Your task to perform on an android device: Open Maps and search for coffee Image 0: 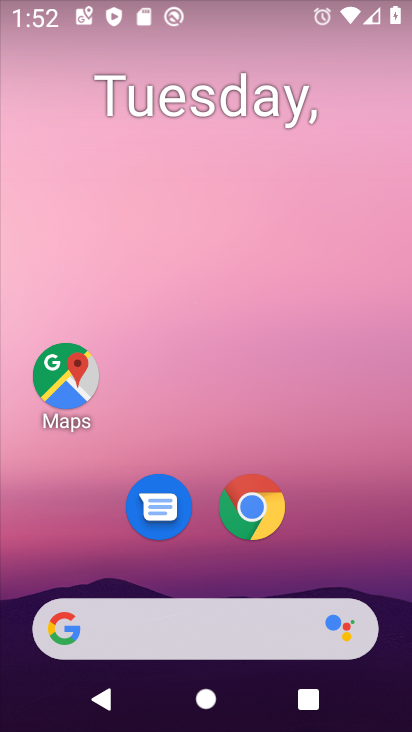
Step 0: click (73, 365)
Your task to perform on an android device: Open Maps and search for coffee Image 1: 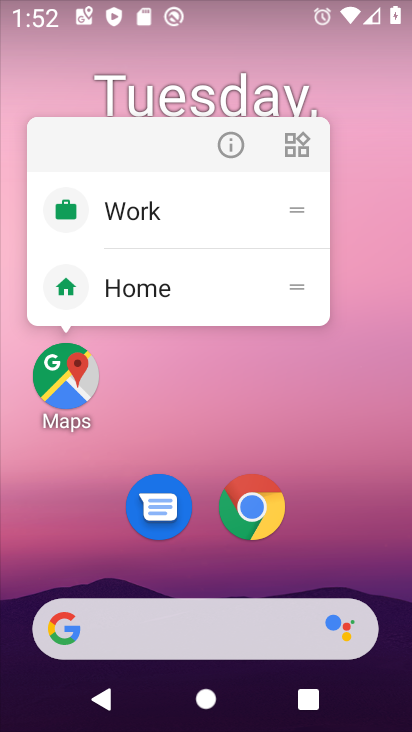
Step 1: click (63, 372)
Your task to perform on an android device: Open Maps and search for coffee Image 2: 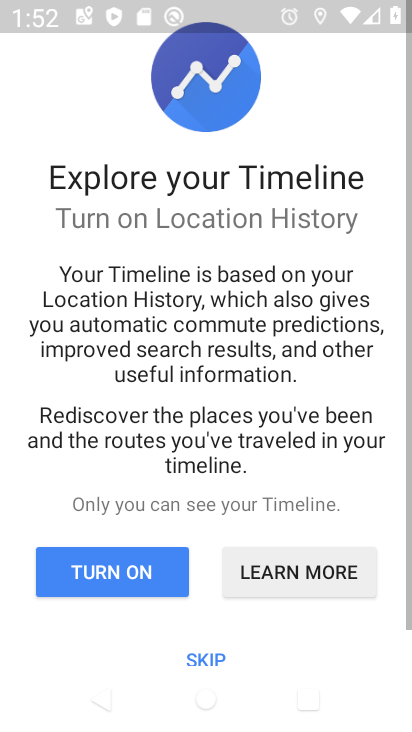
Step 2: click (211, 660)
Your task to perform on an android device: Open Maps and search for coffee Image 3: 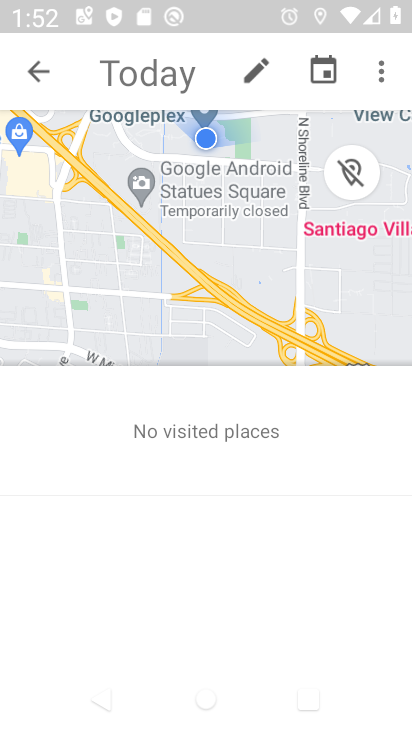
Step 3: click (45, 63)
Your task to perform on an android device: Open Maps and search for coffee Image 4: 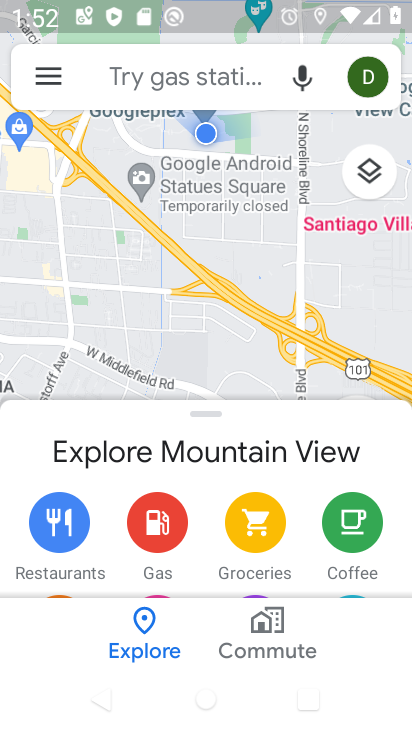
Step 4: click (196, 69)
Your task to perform on an android device: Open Maps and search for coffee Image 5: 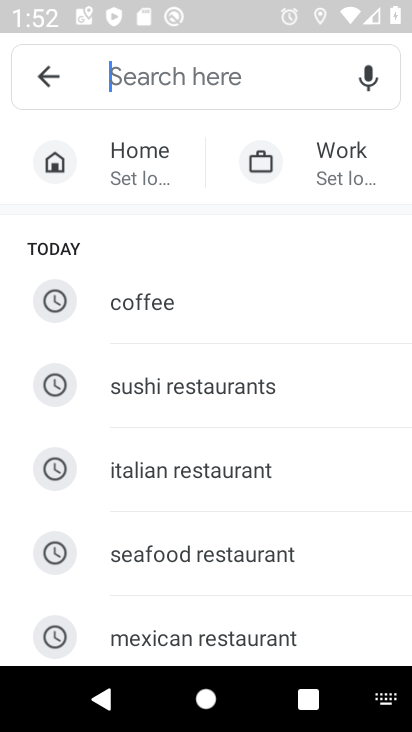
Step 5: type " coffee"
Your task to perform on an android device: Open Maps and search for coffee Image 6: 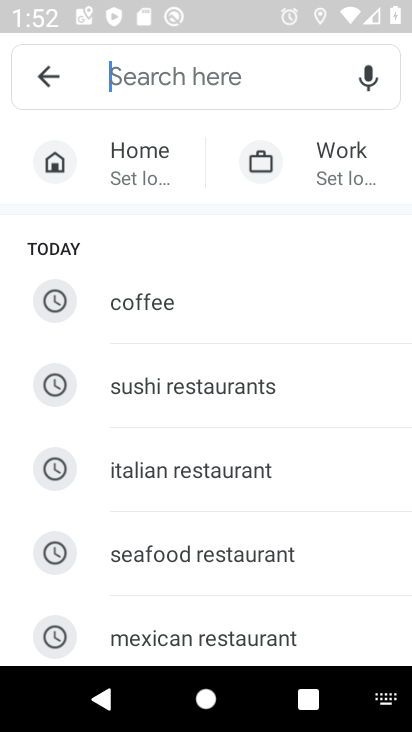
Step 6: click (200, 312)
Your task to perform on an android device: Open Maps and search for coffee Image 7: 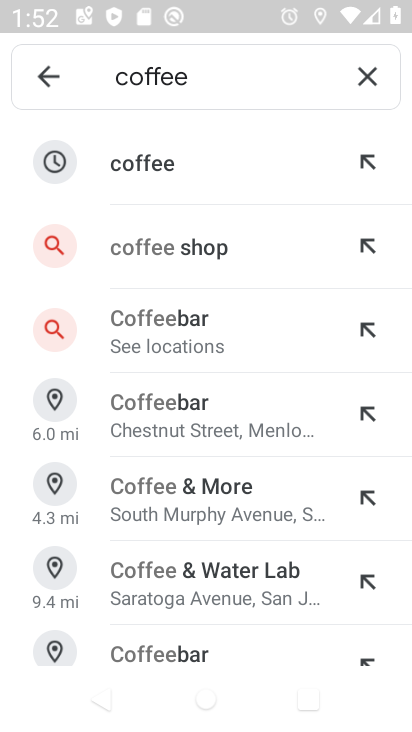
Step 7: click (149, 138)
Your task to perform on an android device: Open Maps and search for coffee Image 8: 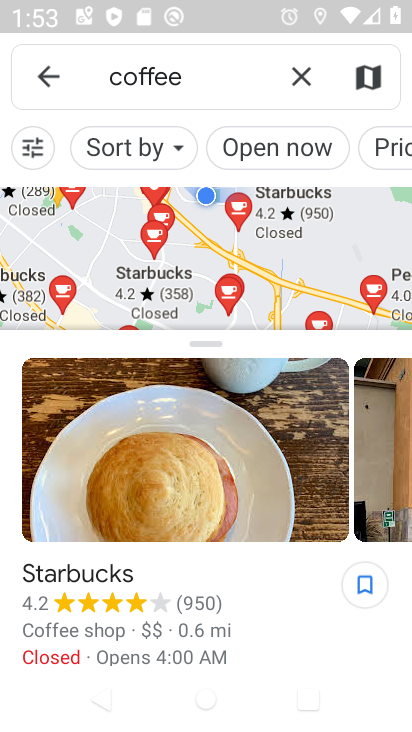
Step 8: task complete